Your task to perform on an android device: Show me the alarms in the clock app Image 0: 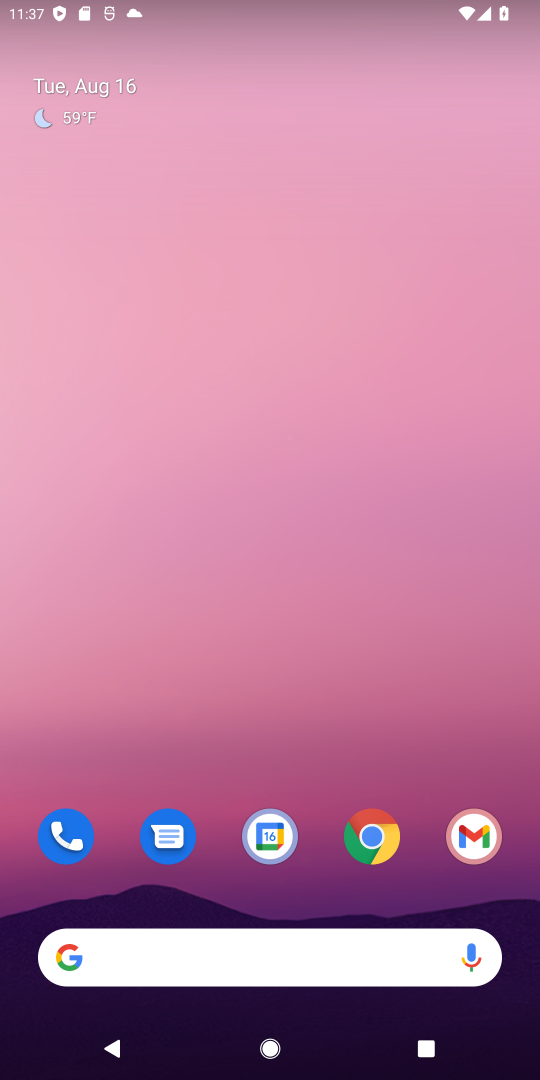
Step 0: drag from (193, 977) to (215, 60)
Your task to perform on an android device: Show me the alarms in the clock app Image 1: 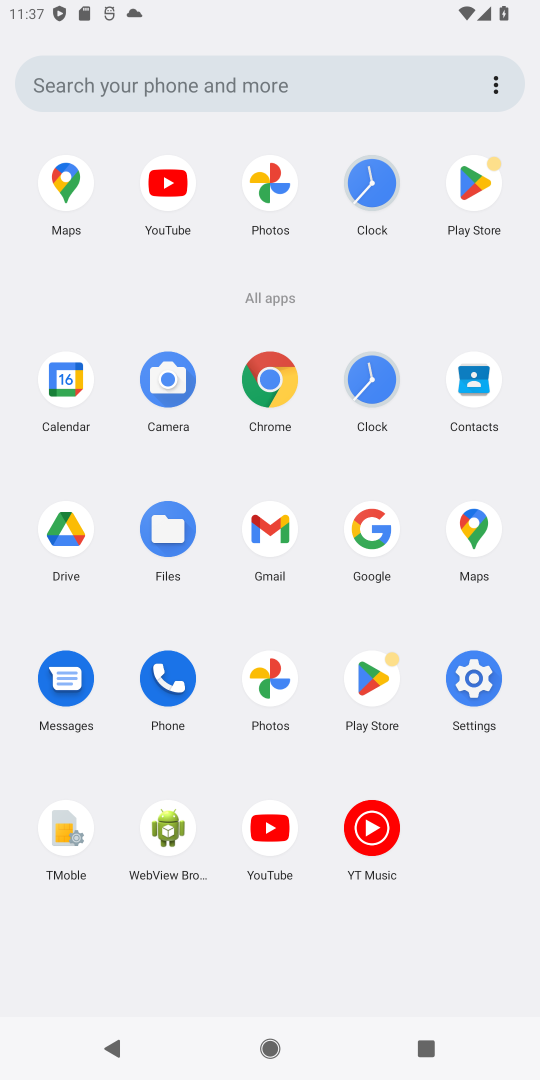
Step 1: click (371, 186)
Your task to perform on an android device: Show me the alarms in the clock app Image 2: 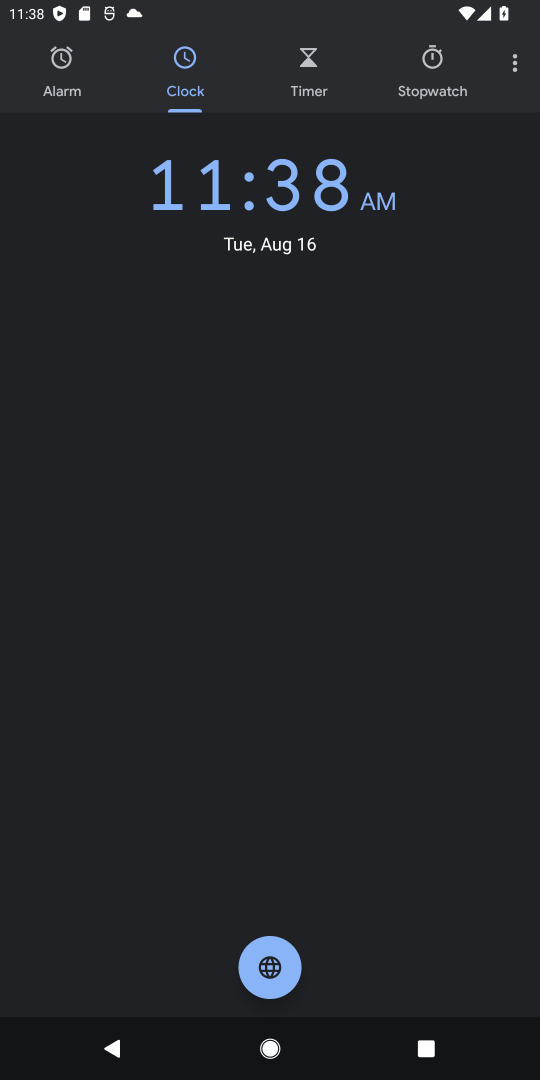
Step 2: click (64, 62)
Your task to perform on an android device: Show me the alarms in the clock app Image 3: 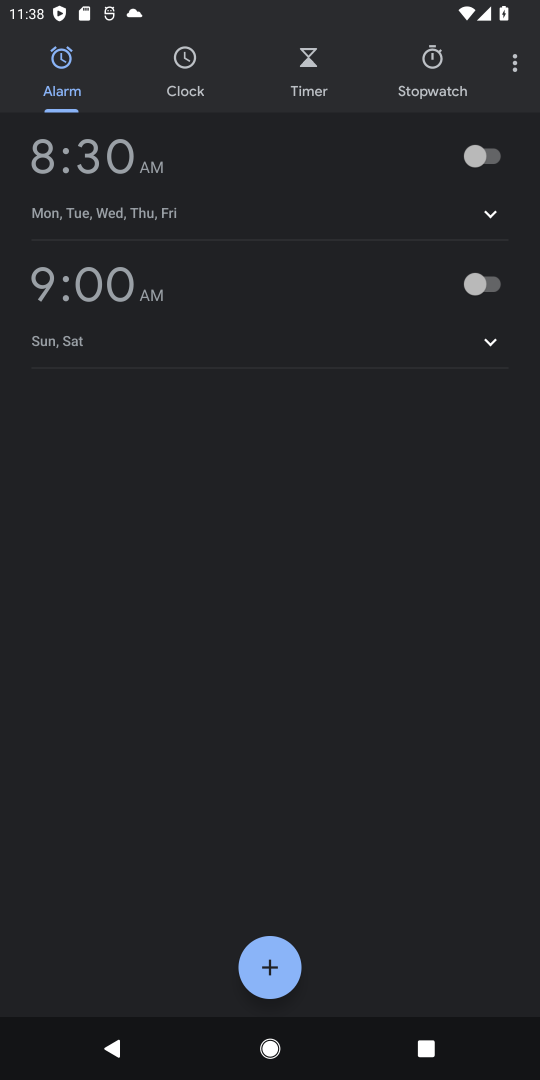
Step 3: click (102, 162)
Your task to perform on an android device: Show me the alarms in the clock app Image 4: 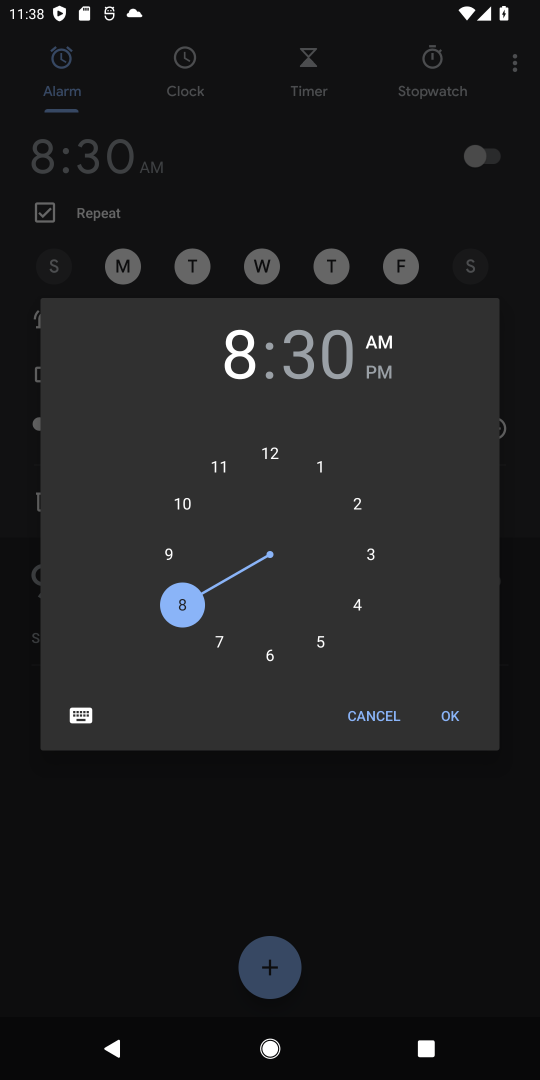
Step 4: click (361, 520)
Your task to perform on an android device: Show me the alarms in the clock app Image 5: 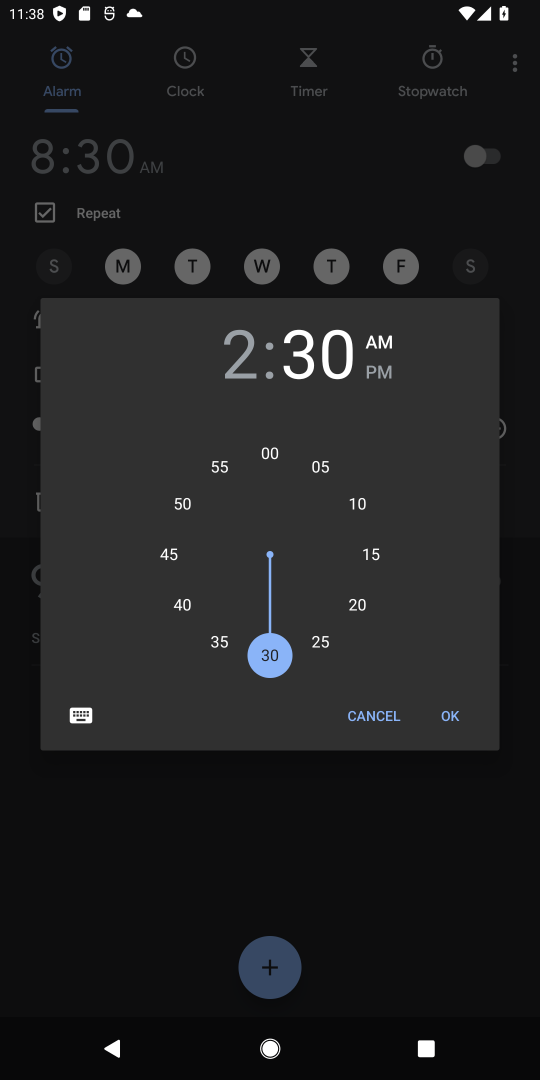
Step 5: click (249, 461)
Your task to perform on an android device: Show me the alarms in the clock app Image 6: 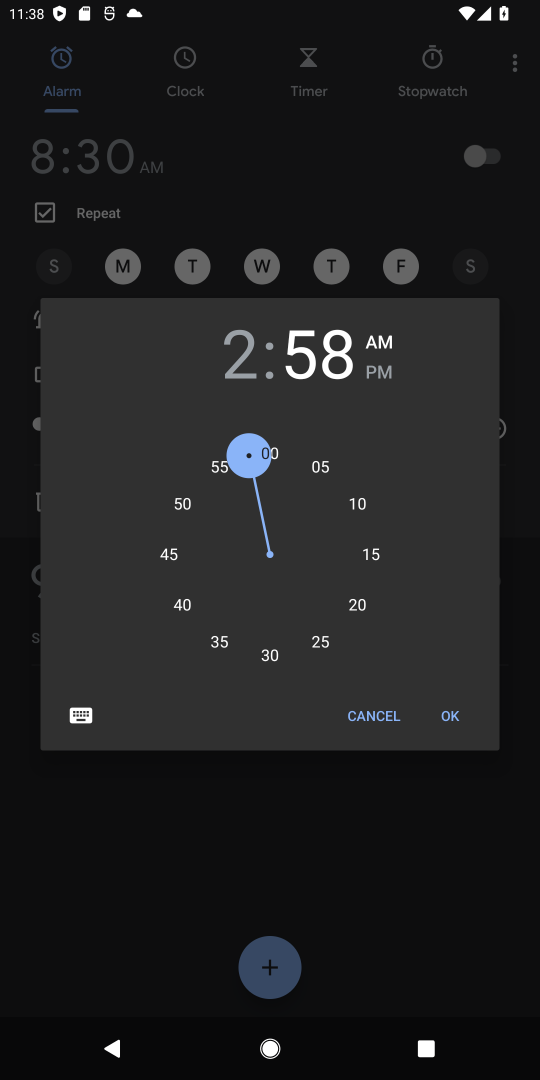
Step 6: click (359, 377)
Your task to perform on an android device: Show me the alarms in the clock app Image 7: 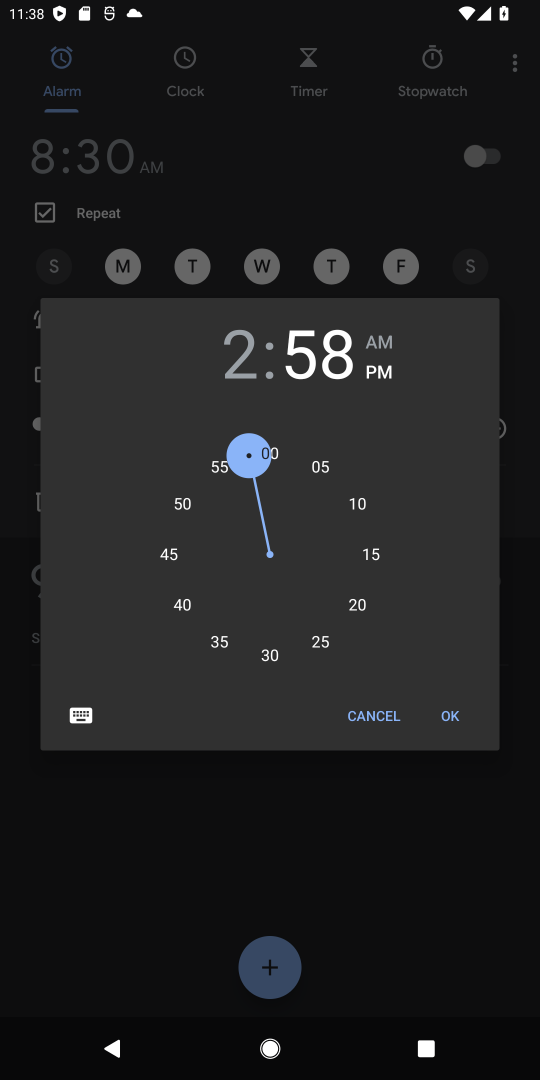
Step 7: click (445, 715)
Your task to perform on an android device: Show me the alarms in the clock app Image 8: 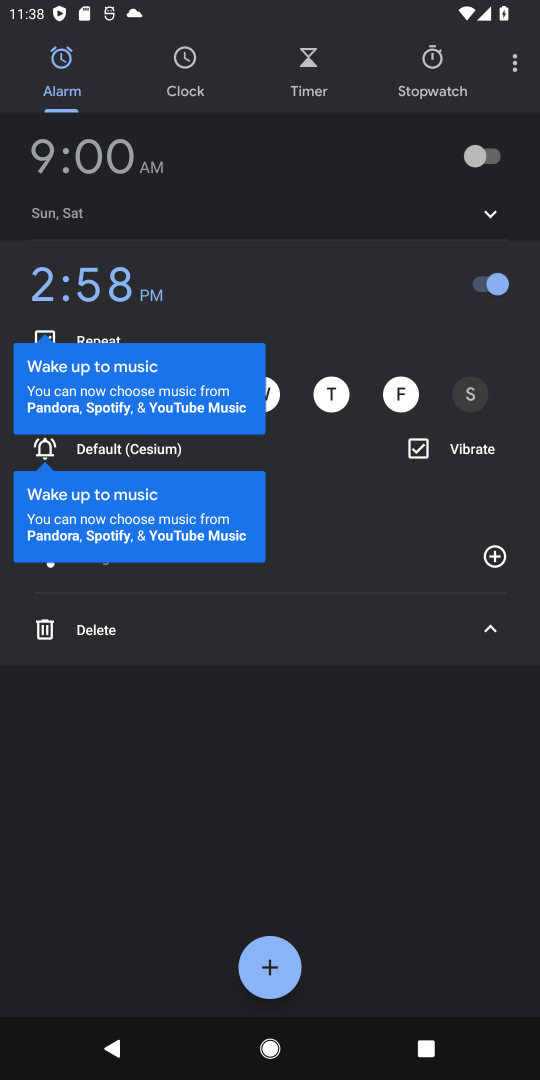
Step 8: click (492, 634)
Your task to perform on an android device: Show me the alarms in the clock app Image 9: 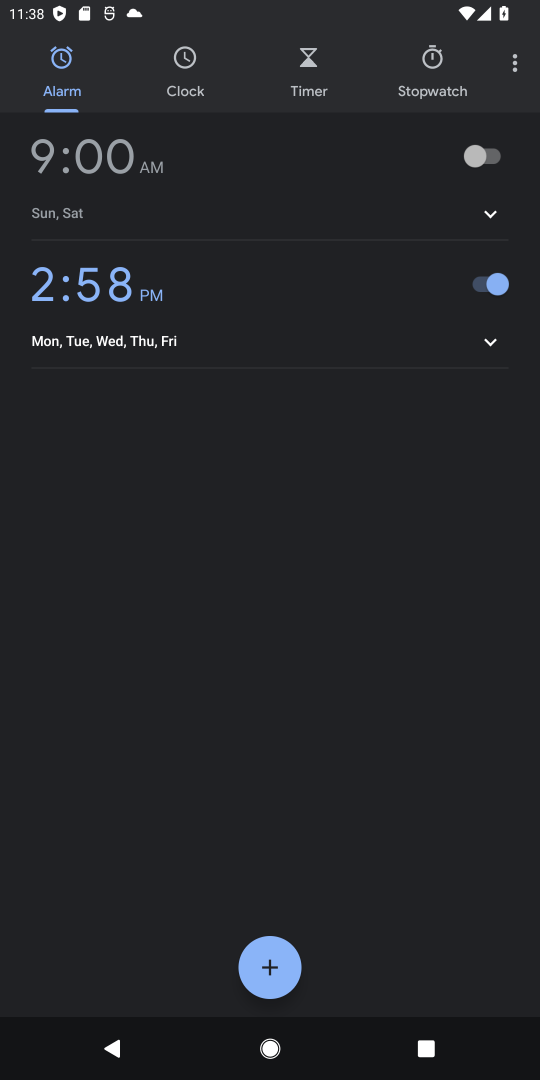
Step 9: task complete